Your task to perform on an android device: find snoozed emails in the gmail app Image 0: 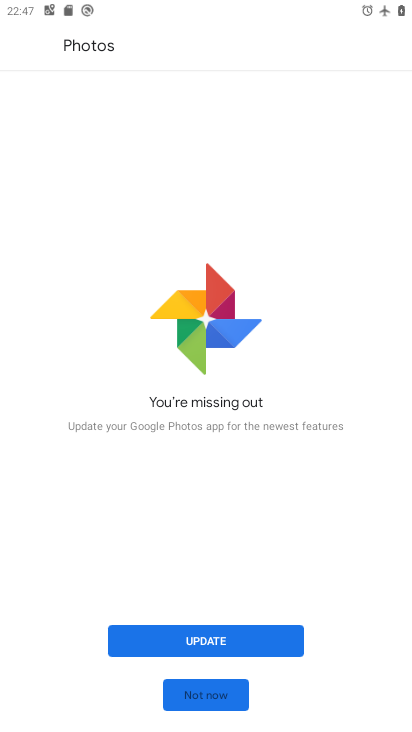
Step 0: press home button
Your task to perform on an android device: find snoozed emails in the gmail app Image 1: 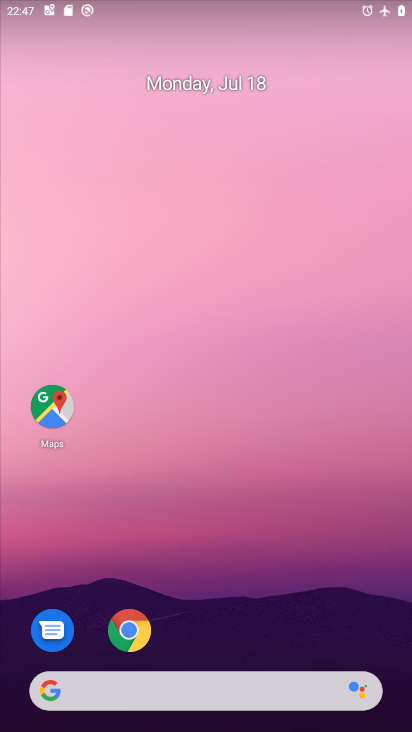
Step 1: drag from (211, 624) to (192, 292)
Your task to perform on an android device: find snoozed emails in the gmail app Image 2: 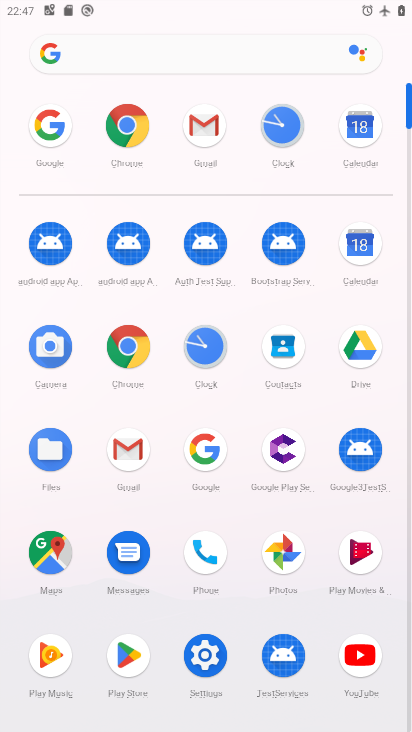
Step 2: click (195, 145)
Your task to perform on an android device: find snoozed emails in the gmail app Image 3: 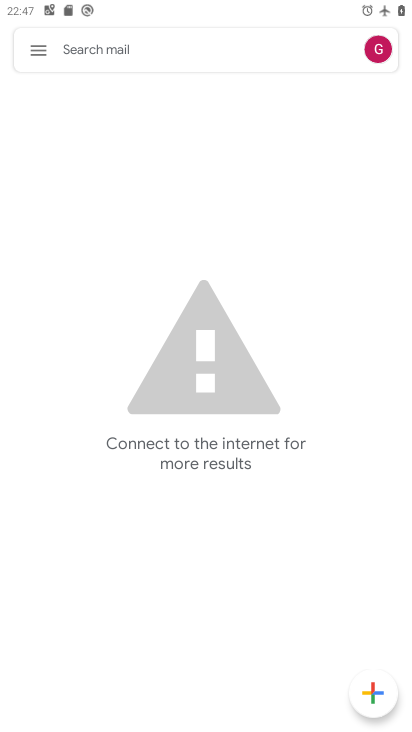
Step 3: click (45, 51)
Your task to perform on an android device: find snoozed emails in the gmail app Image 4: 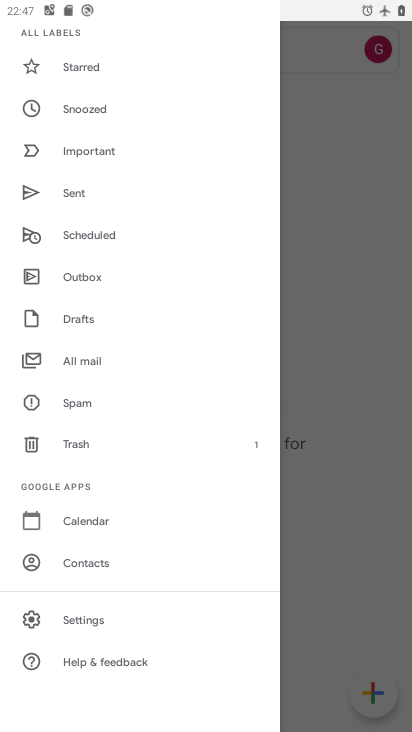
Step 4: click (83, 108)
Your task to perform on an android device: find snoozed emails in the gmail app Image 5: 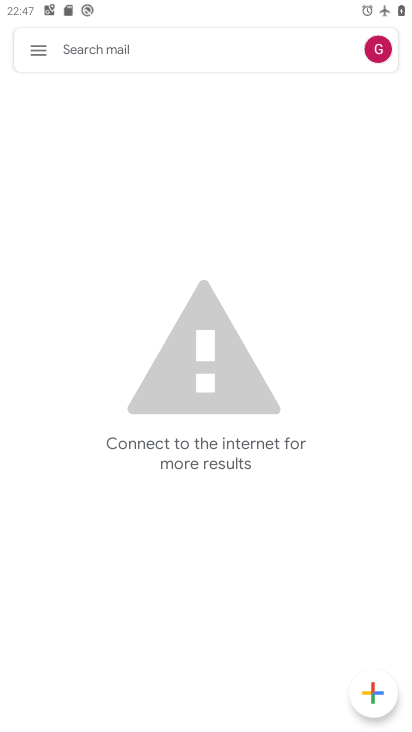
Step 5: task complete